Your task to perform on an android device: find photos in the google photos app Image 0: 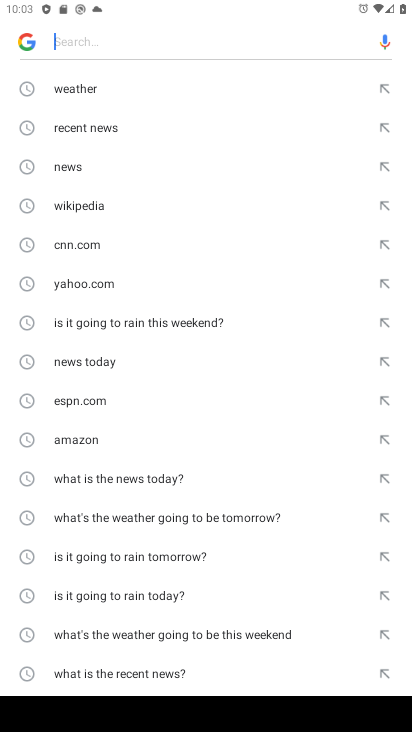
Step 0: press home button
Your task to perform on an android device: find photos in the google photos app Image 1: 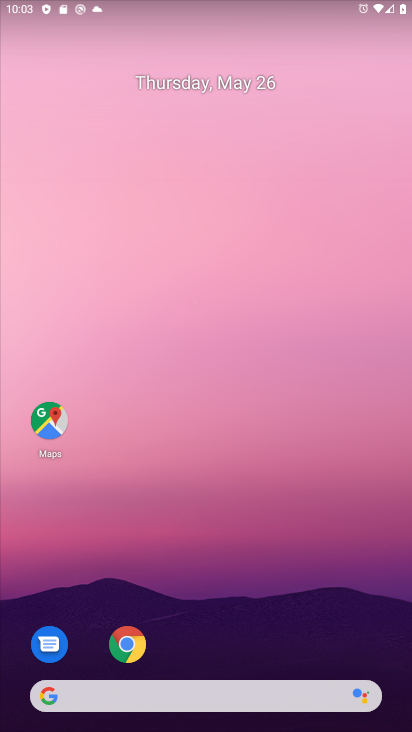
Step 1: drag from (225, 641) to (243, 266)
Your task to perform on an android device: find photos in the google photos app Image 2: 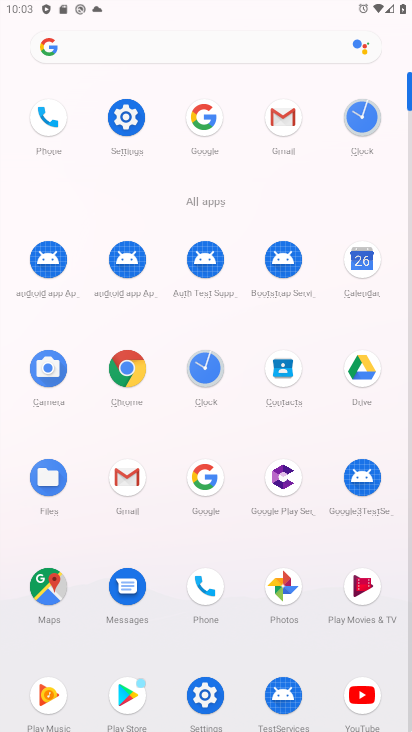
Step 2: click (278, 572)
Your task to perform on an android device: find photos in the google photos app Image 3: 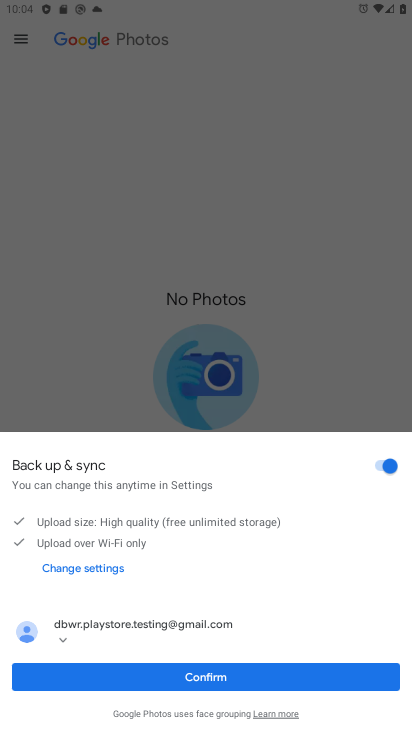
Step 3: click (211, 676)
Your task to perform on an android device: find photos in the google photos app Image 4: 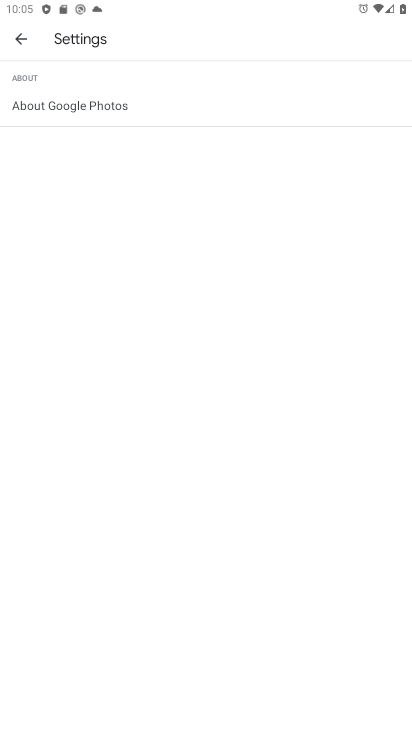
Step 4: click (17, 41)
Your task to perform on an android device: find photos in the google photos app Image 5: 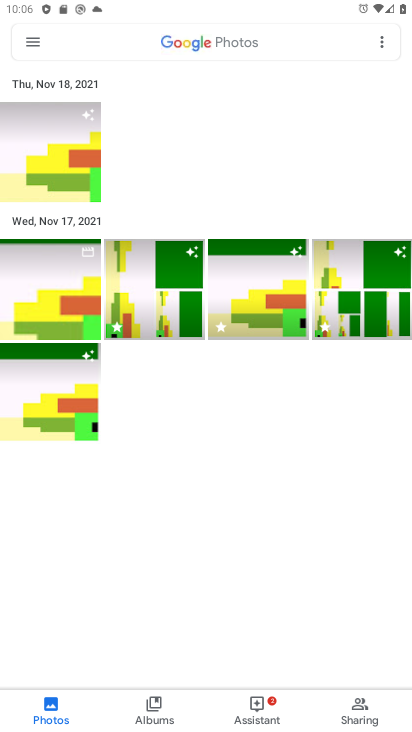
Step 5: task complete